Your task to perform on an android device: turn on airplane mode Image 0: 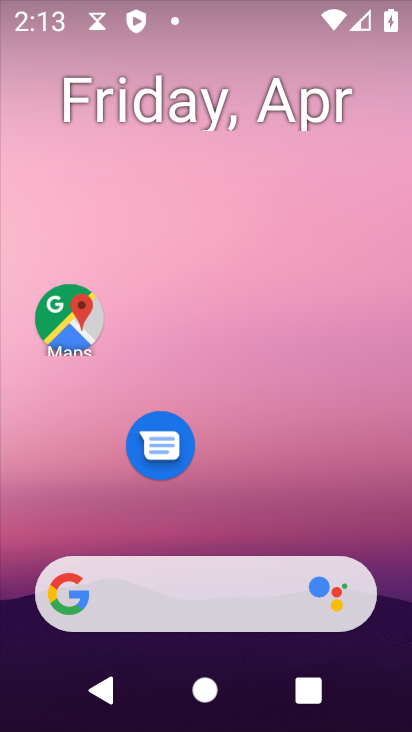
Step 0: drag from (306, 505) to (300, 112)
Your task to perform on an android device: turn on airplane mode Image 1: 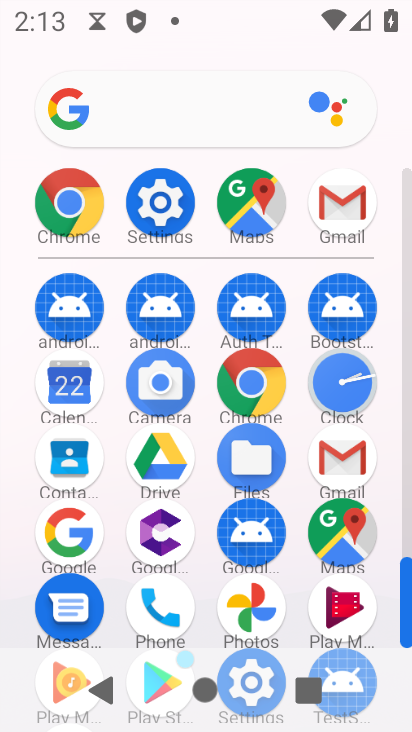
Step 1: click (168, 203)
Your task to perform on an android device: turn on airplane mode Image 2: 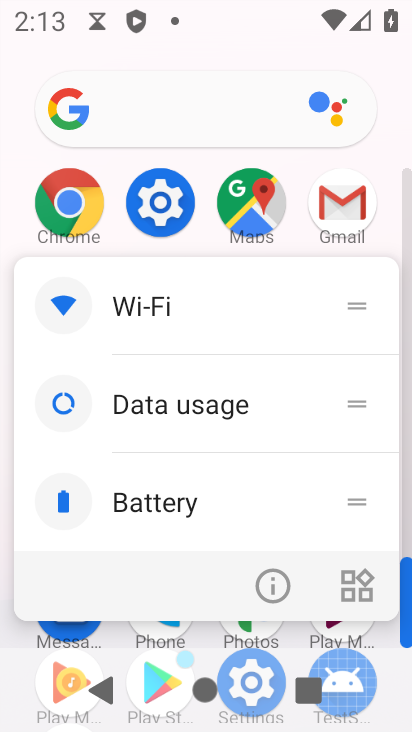
Step 2: click (158, 193)
Your task to perform on an android device: turn on airplane mode Image 3: 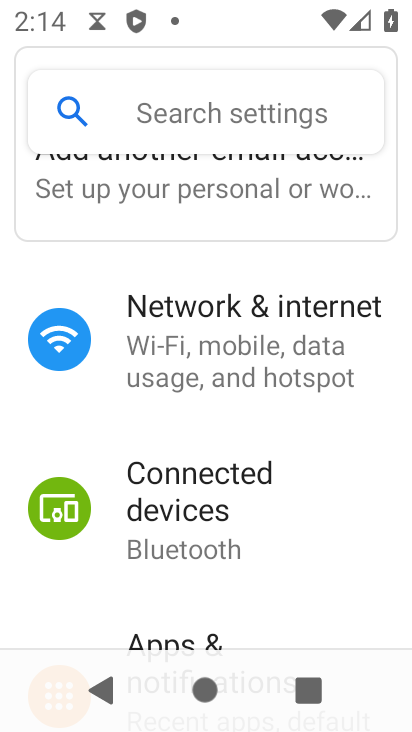
Step 3: click (228, 372)
Your task to perform on an android device: turn on airplane mode Image 4: 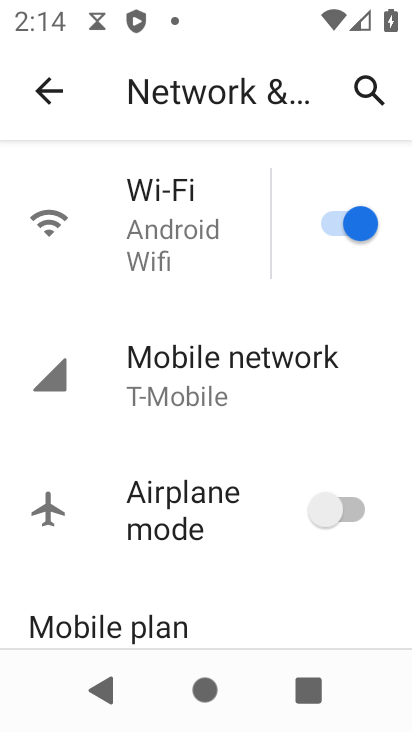
Step 4: click (284, 508)
Your task to perform on an android device: turn on airplane mode Image 5: 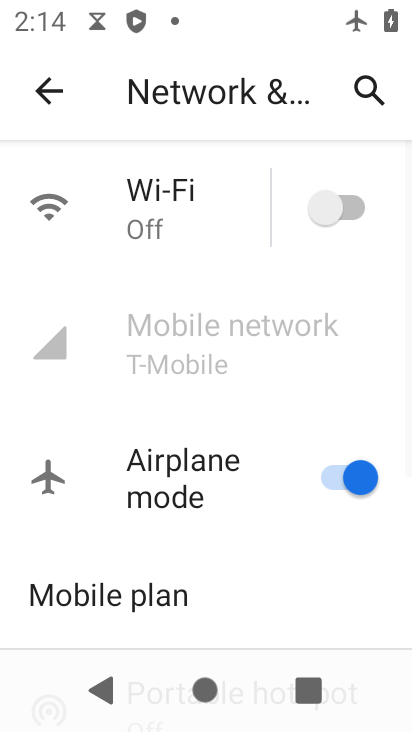
Step 5: task complete